Your task to perform on an android device: change the clock display to show seconds Image 0: 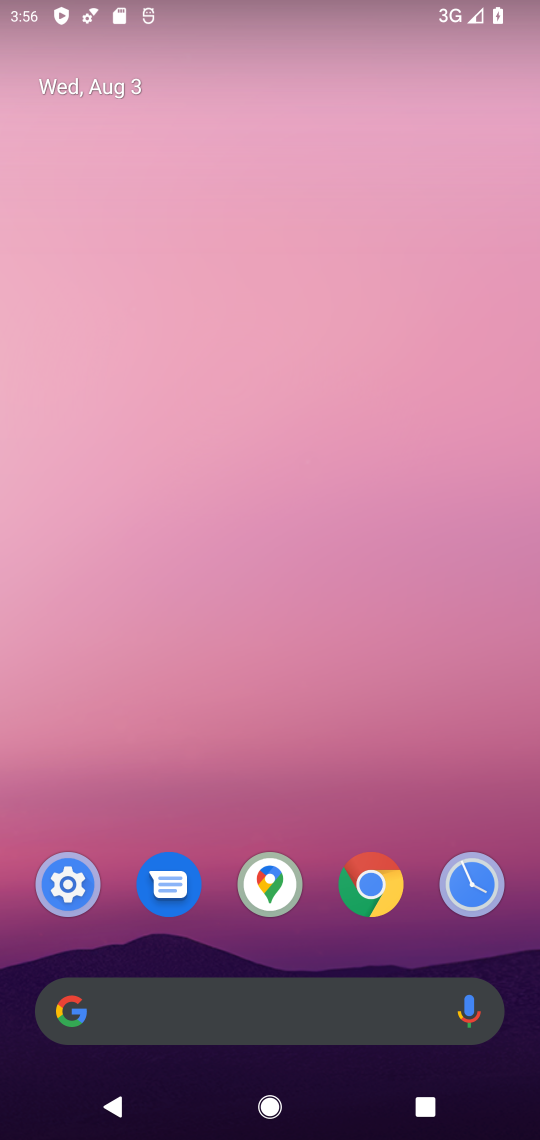
Step 0: drag from (204, 950) to (216, 324)
Your task to perform on an android device: change the clock display to show seconds Image 1: 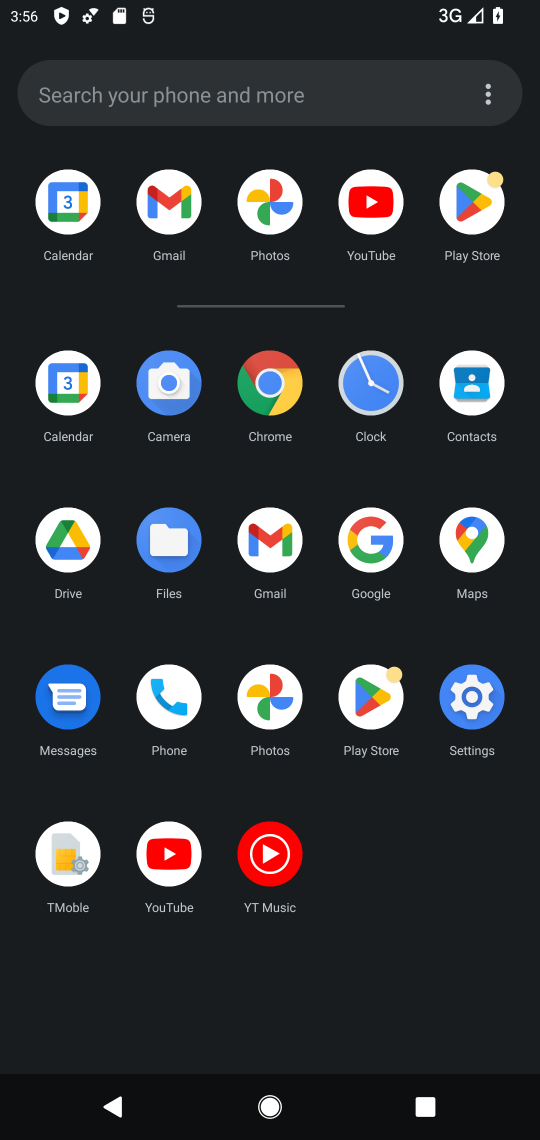
Step 1: click (364, 435)
Your task to perform on an android device: change the clock display to show seconds Image 2: 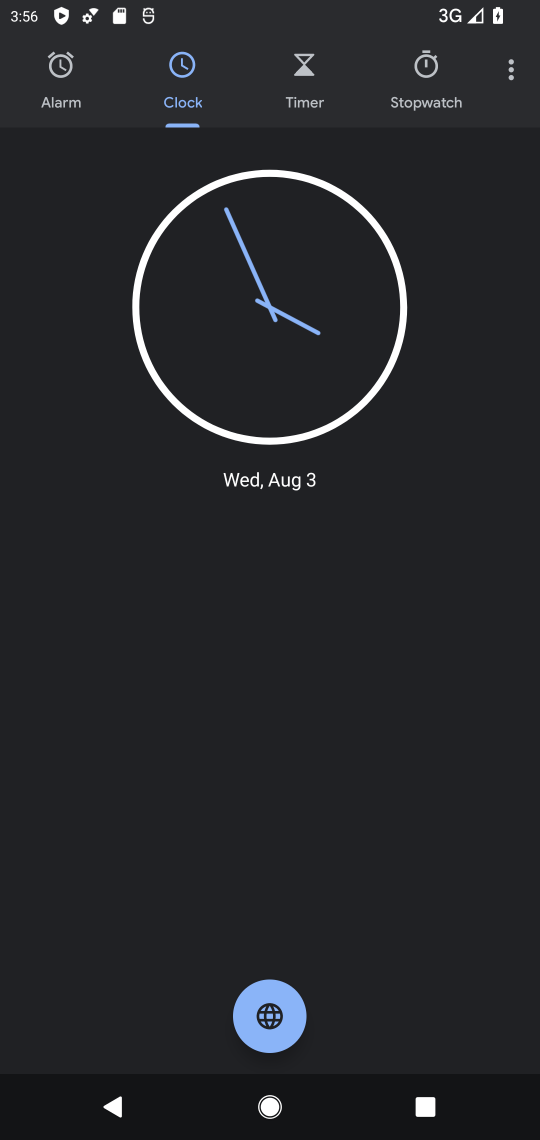
Step 2: click (520, 74)
Your task to perform on an android device: change the clock display to show seconds Image 3: 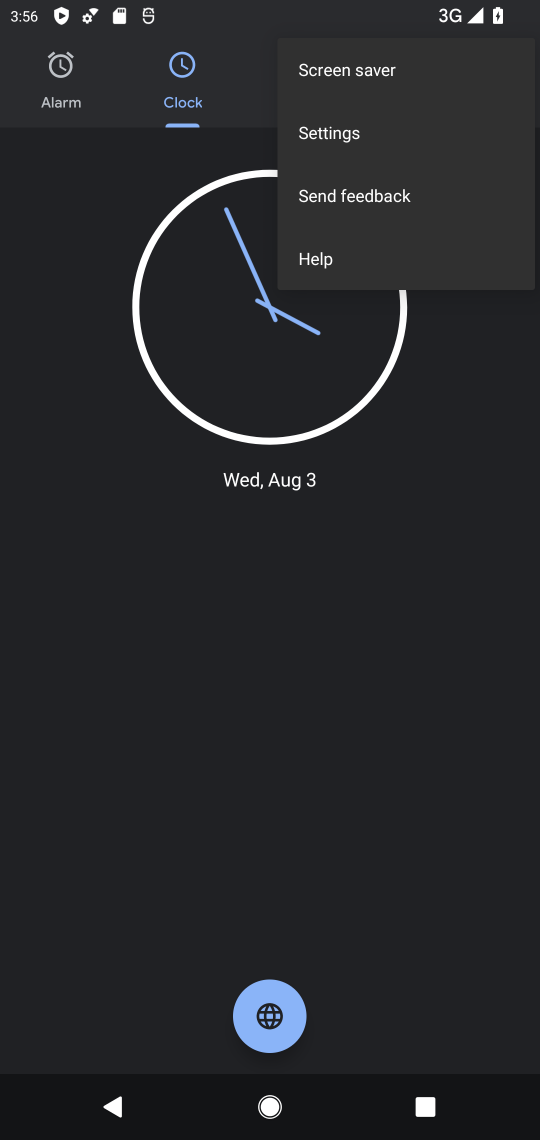
Step 3: click (396, 121)
Your task to perform on an android device: change the clock display to show seconds Image 4: 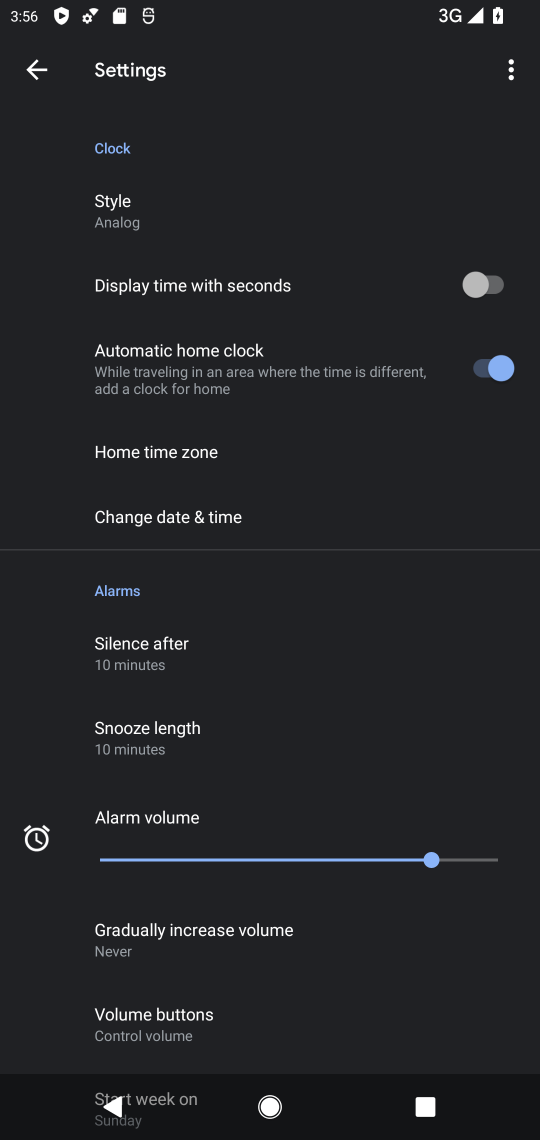
Step 4: click (177, 506)
Your task to perform on an android device: change the clock display to show seconds Image 5: 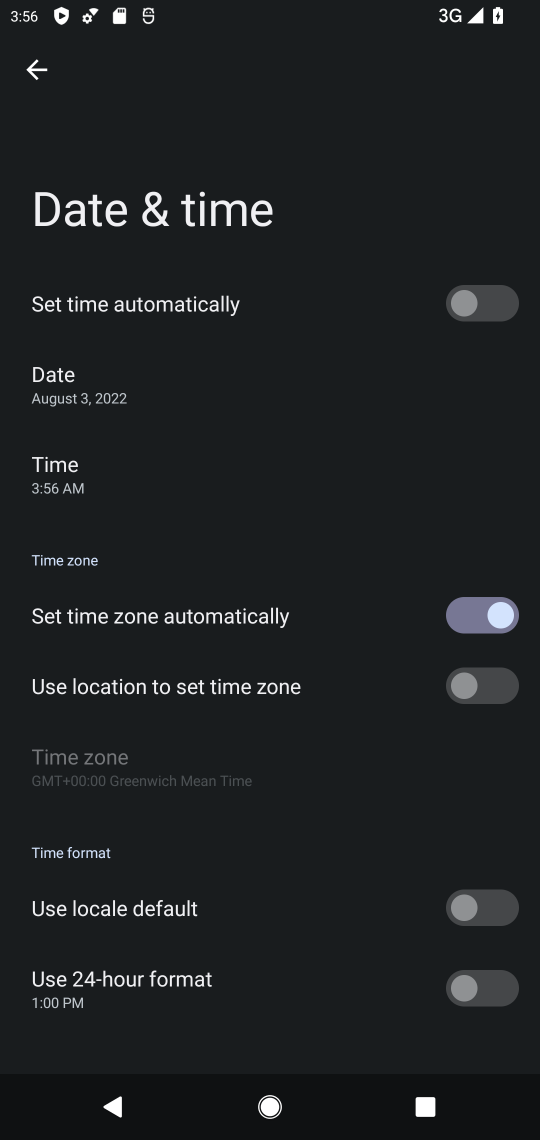
Step 5: task complete